Your task to perform on an android device: set default search engine in the chrome app Image 0: 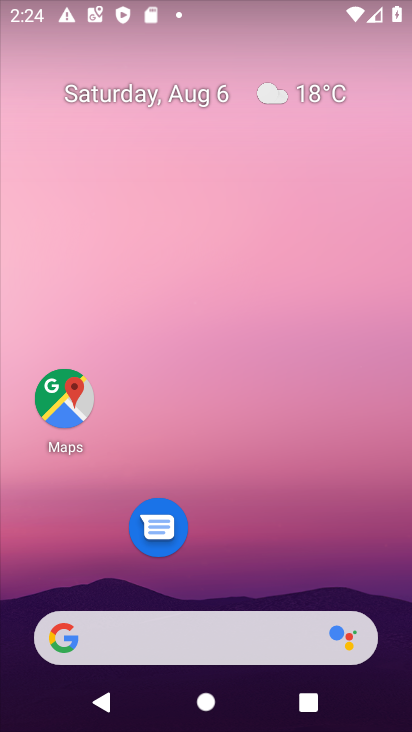
Step 0: drag from (246, 532) to (296, 133)
Your task to perform on an android device: set default search engine in the chrome app Image 1: 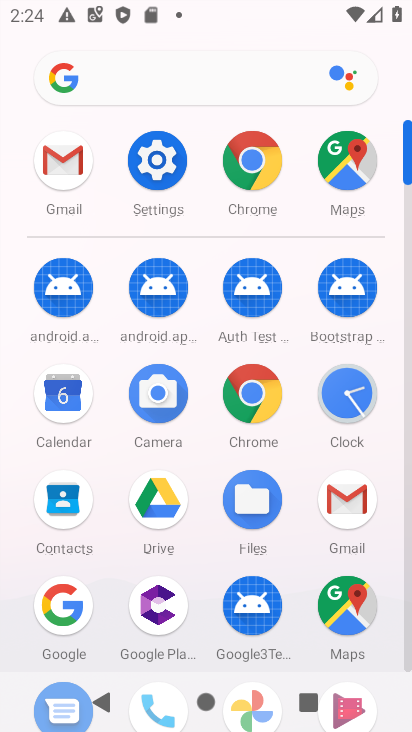
Step 1: click (264, 408)
Your task to perform on an android device: set default search engine in the chrome app Image 2: 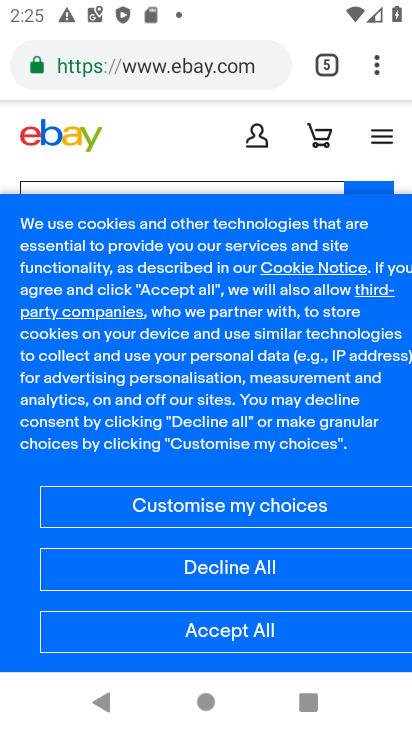
Step 2: click (378, 71)
Your task to perform on an android device: set default search engine in the chrome app Image 3: 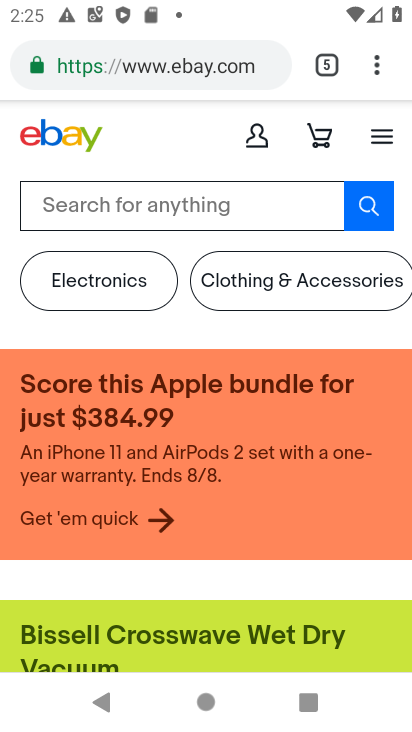
Step 3: click (375, 73)
Your task to perform on an android device: set default search engine in the chrome app Image 4: 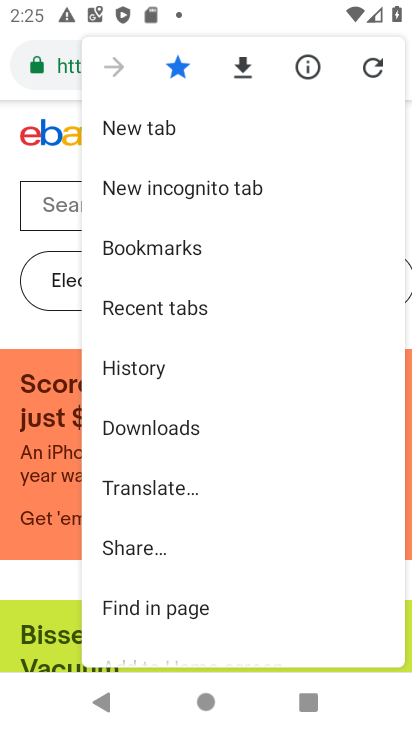
Step 4: drag from (164, 529) to (277, 7)
Your task to perform on an android device: set default search engine in the chrome app Image 5: 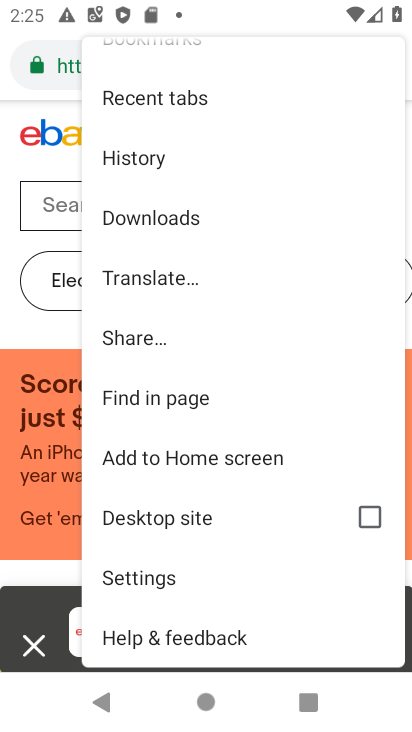
Step 5: click (184, 576)
Your task to perform on an android device: set default search engine in the chrome app Image 6: 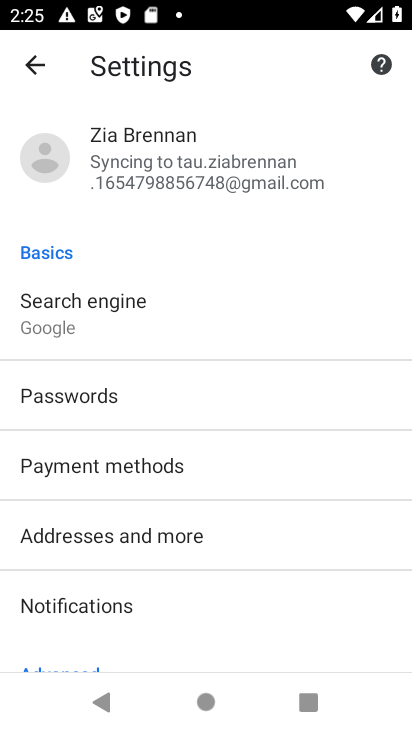
Step 6: click (65, 310)
Your task to perform on an android device: set default search engine in the chrome app Image 7: 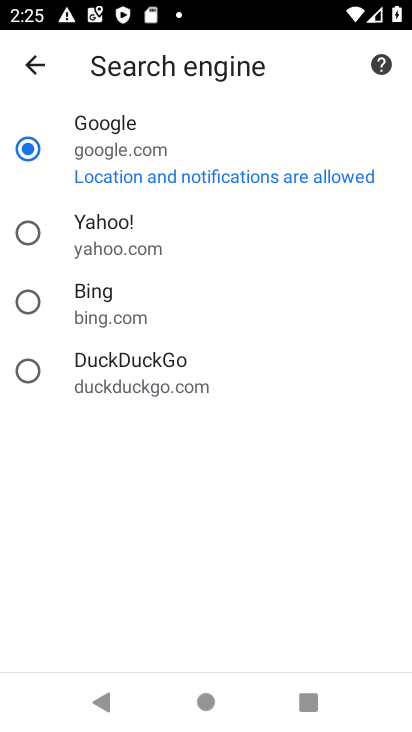
Step 7: task complete